Your task to perform on an android device: open a new tab in the chrome app Image 0: 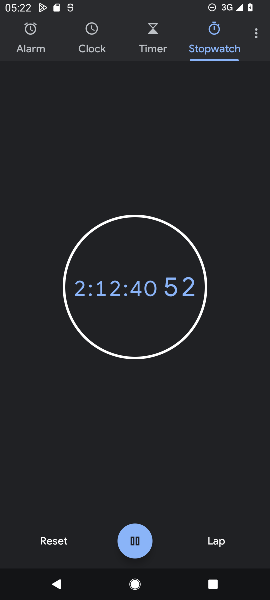
Step 0: press home button
Your task to perform on an android device: open a new tab in the chrome app Image 1: 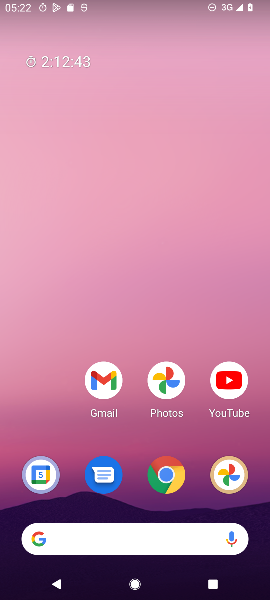
Step 1: drag from (63, 428) to (45, 200)
Your task to perform on an android device: open a new tab in the chrome app Image 2: 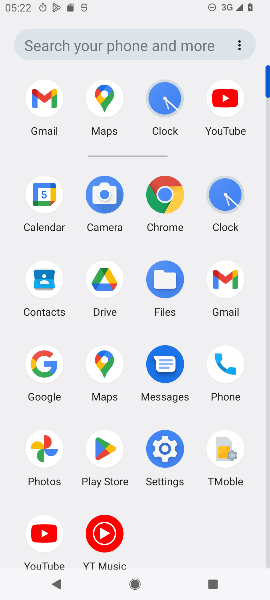
Step 2: click (175, 187)
Your task to perform on an android device: open a new tab in the chrome app Image 3: 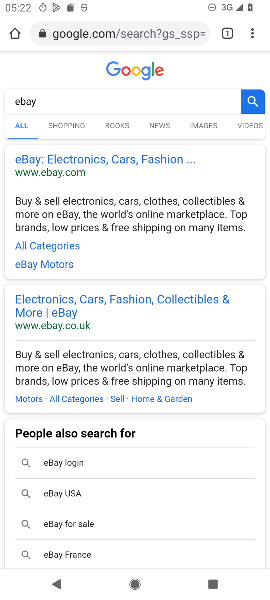
Step 3: click (253, 38)
Your task to perform on an android device: open a new tab in the chrome app Image 4: 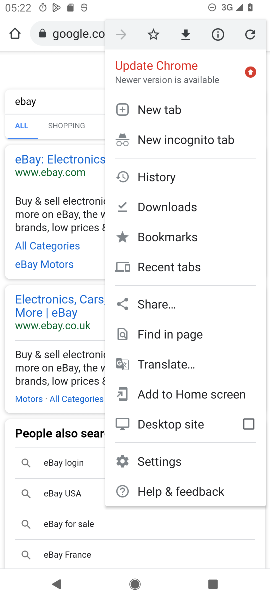
Step 4: click (163, 110)
Your task to perform on an android device: open a new tab in the chrome app Image 5: 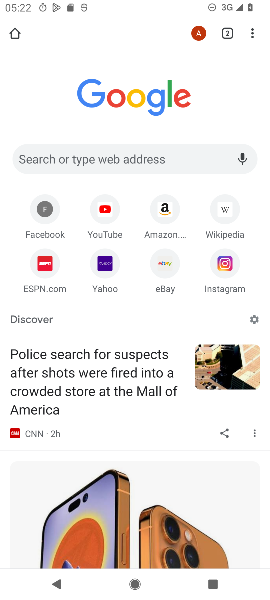
Step 5: task complete